Your task to perform on an android device: What's the weather going to be tomorrow? Image 0: 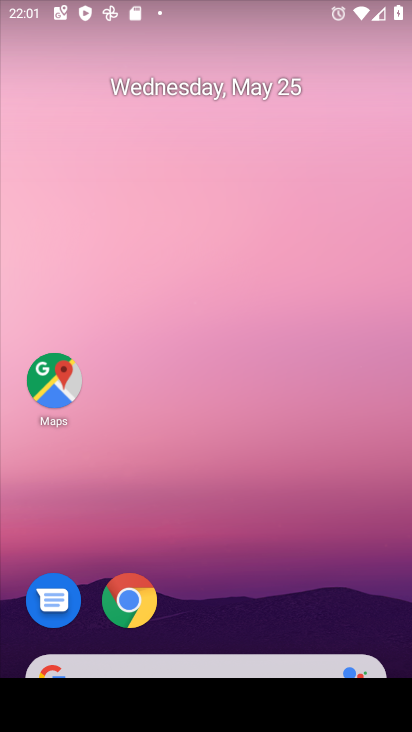
Step 0: drag from (391, 608) to (365, 46)
Your task to perform on an android device: What's the weather going to be tomorrow? Image 1: 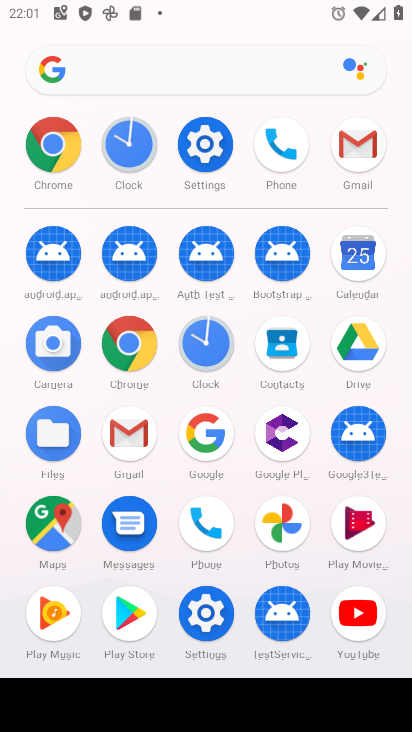
Step 1: click (144, 336)
Your task to perform on an android device: What's the weather going to be tomorrow? Image 2: 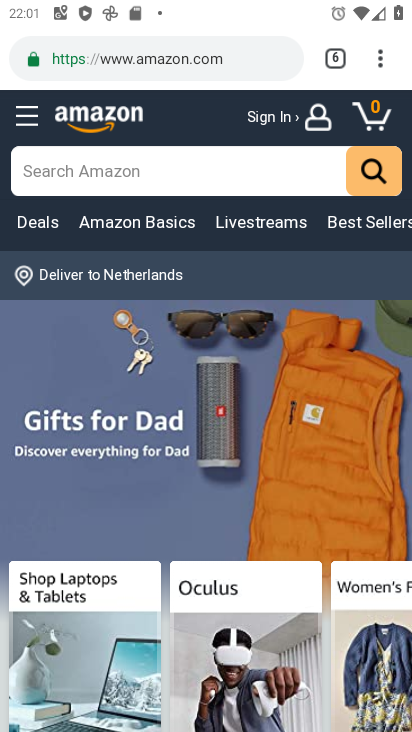
Step 2: click (191, 74)
Your task to perform on an android device: What's the weather going to be tomorrow? Image 3: 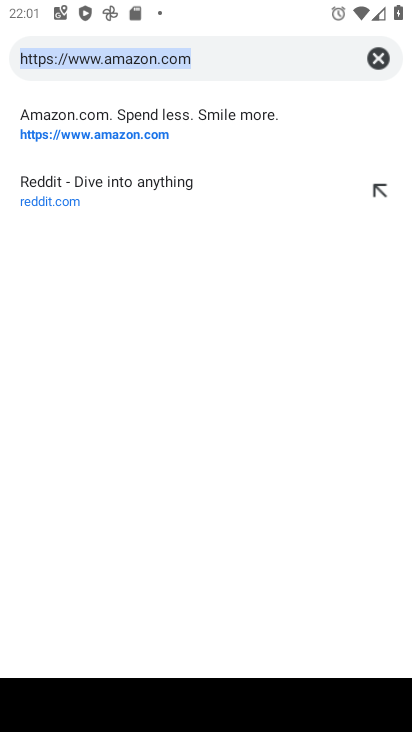
Step 3: click (371, 58)
Your task to perform on an android device: What's the weather going to be tomorrow? Image 4: 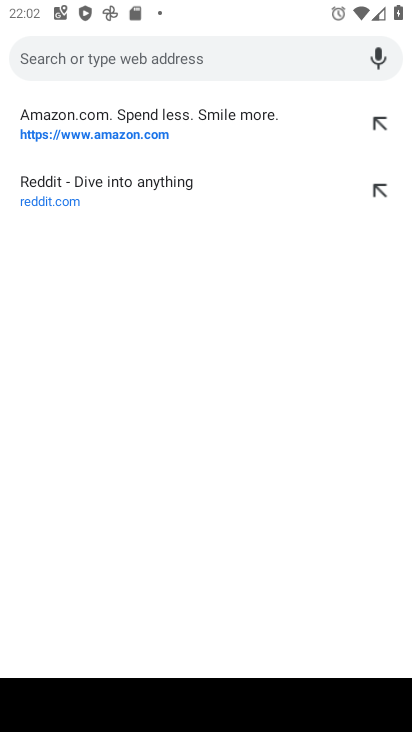
Step 4: type "what's the weather going to be tomorrow"
Your task to perform on an android device: What's the weather going to be tomorrow? Image 5: 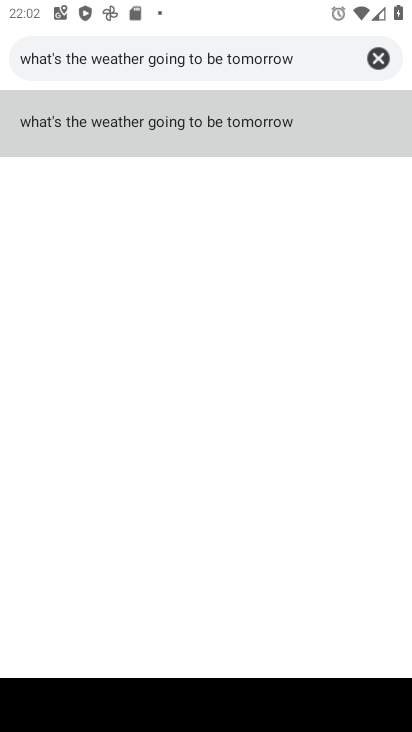
Step 5: click (141, 130)
Your task to perform on an android device: What's the weather going to be tomorrow? Image 6: 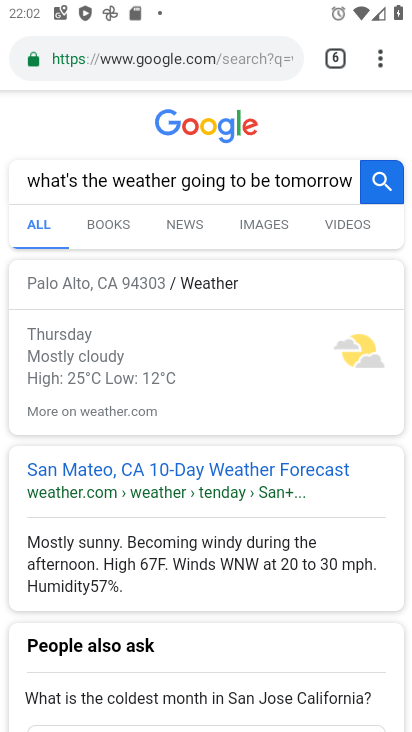
Step 6: task complete